Your task to perform on an android device: remove spam from my inbox in the gmail app Image 0: 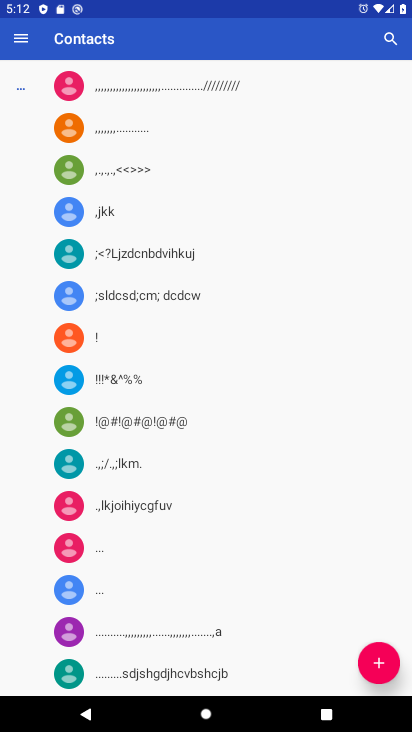
Step 0: press back button
Your task to perform on an android device: remove spam from my inbox in the gmail app Image 1: 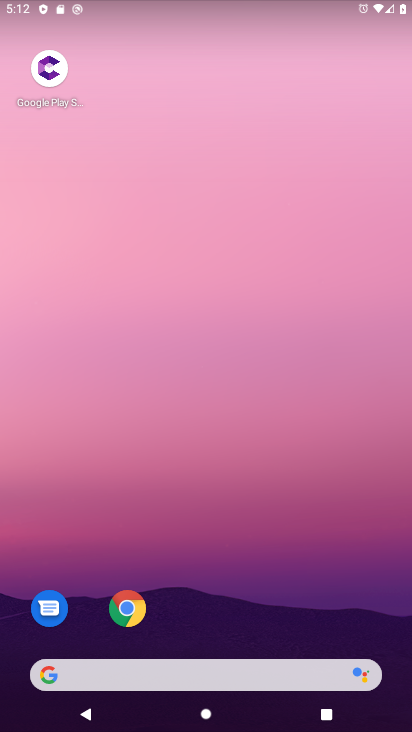
Step 1: drag from (276, 568) to (218, 17)
Your task to perform on an android device: remove spam from my inbox in the gmail app Image 2: 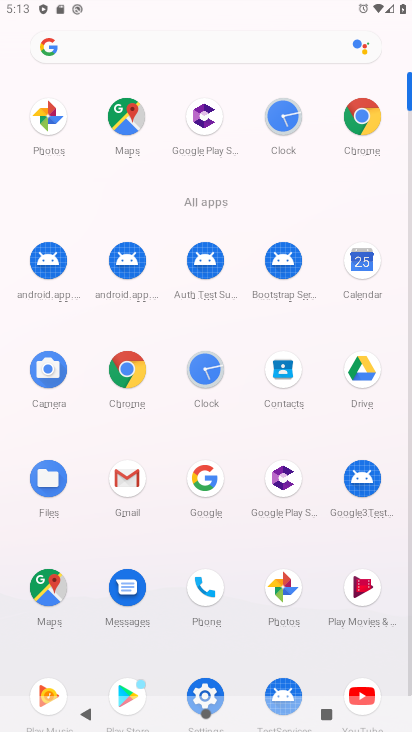
Step 2: drag from (9, 545) to (2, 243)
Your task to perform on an android device: remove spam from my inbox in the gmail app Image 3: 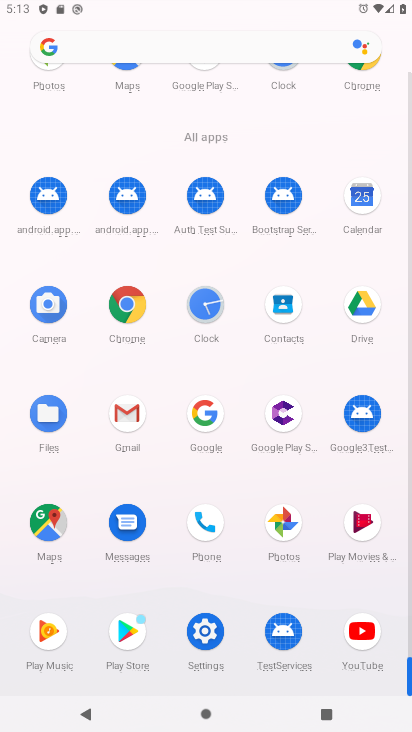
Step 3: click (126, 393)
Your task to perform on an android device: remove spam from my inbox in the gmail app Image 4: 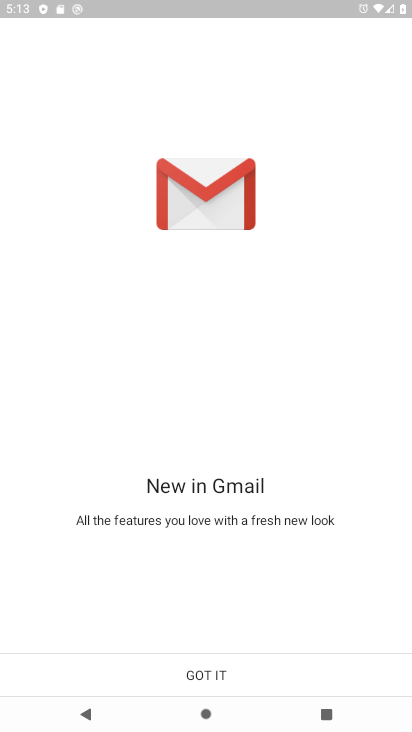
Step 4: click (218, 670)
Your task to perform on an android device: remove spam from my inbox in the gmail app Image 5: 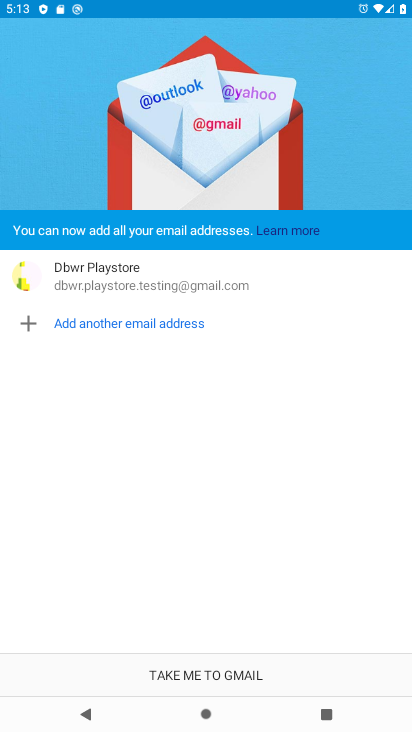
Step 5: click (169, 669)
Your task to perform on an android device: remove spam from my inbox in the gmail app Image 6: 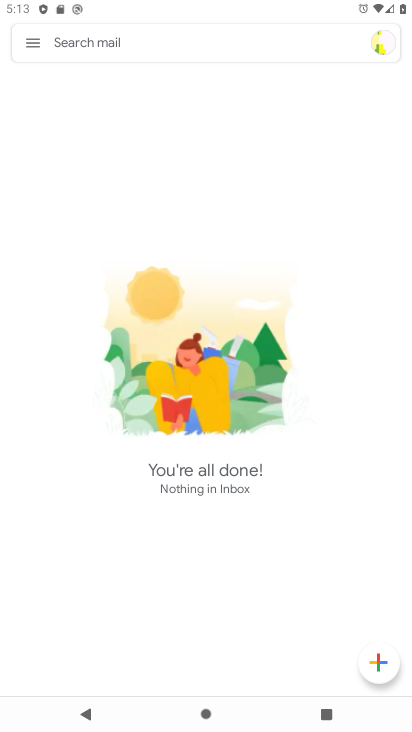
Step 6: click (31, 40)
Your task to perform on an android device: remove spam from my inbox in the gmail app Image 7: 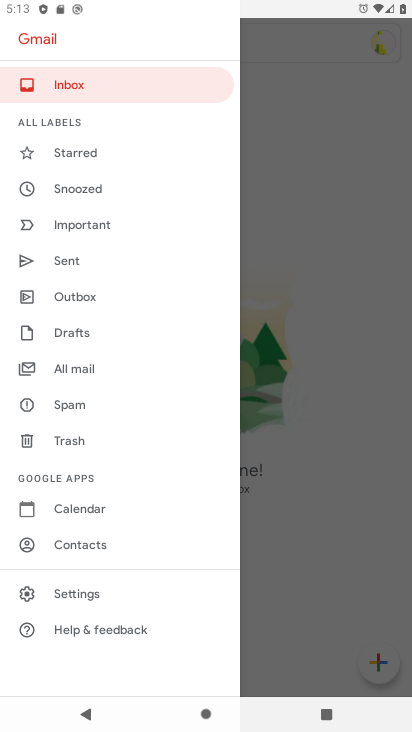
Step 7: drag from (140, 510) to (144, 166)
Your task to perform on an android device: remove spam from my inbox in the gmail app Image 8: 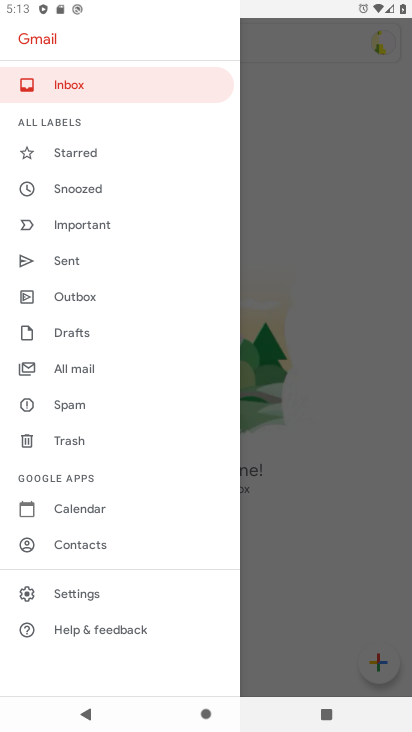
Step 8: click (83, 409)
Your task to perform on an android device: remove spam from my inbox in the gmail app Image 9: 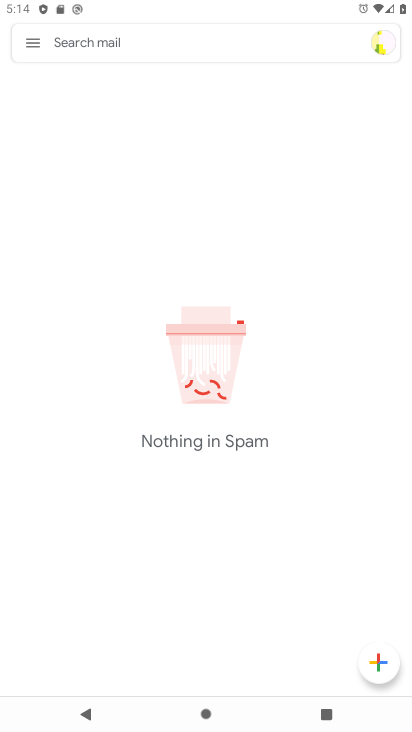
Step 9: task complete